Your task to perform on an android device: Open calendar and show me the second week of next month Image 0: 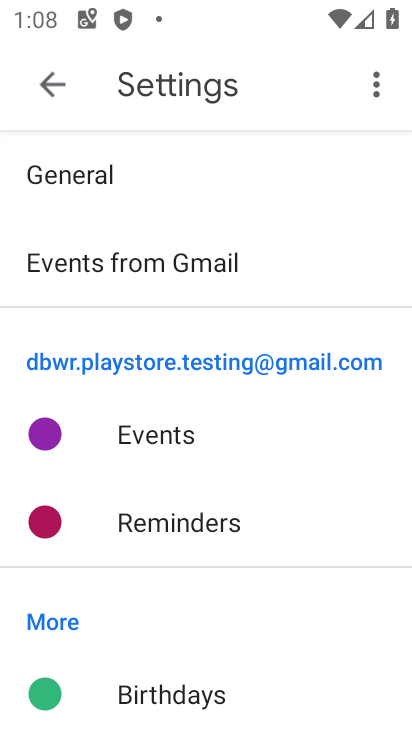
Step 0: press home button
Your task to perform on an android device: Open calendar and show me the second week of next month Image 1: 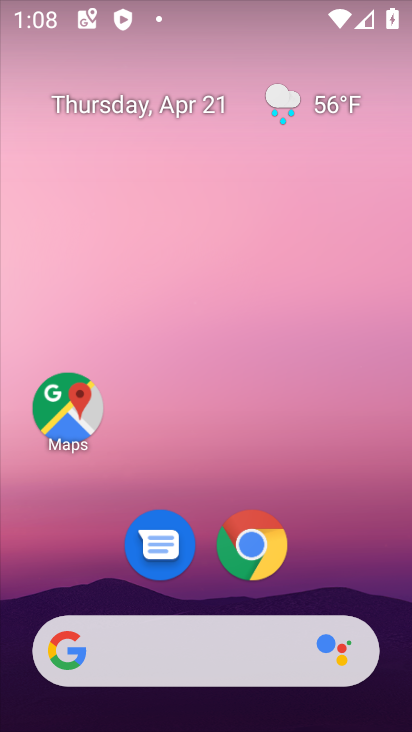
Step 1: drag from (165, 509) to (226, 96)
Your task to perform on an android device: Open calendar and show me the second week of next month Image 2: 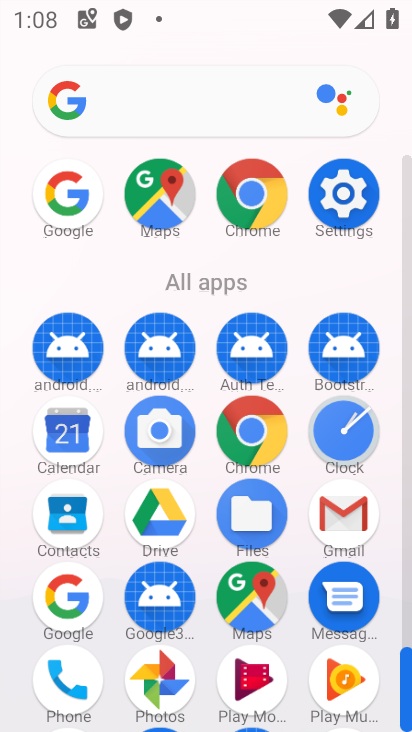
Step 2: click (74, 438)
Your task to perform on an android device: Open calendar and show me the second week of next month Image 3: 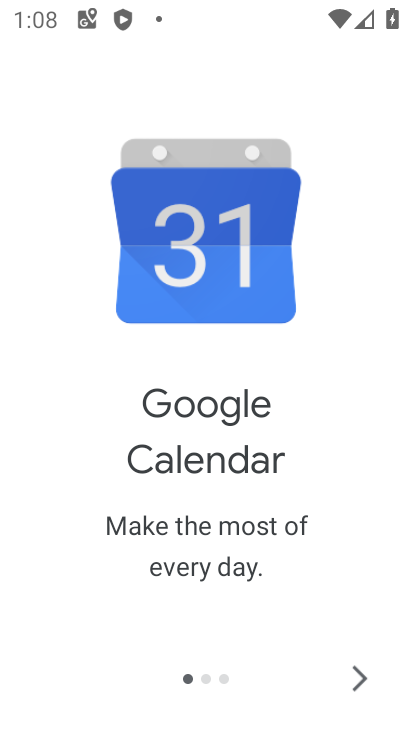
Step 3: click (360, 676)
Your task to perform on an android device: Open calendar and show me the second week of next month Image 4: 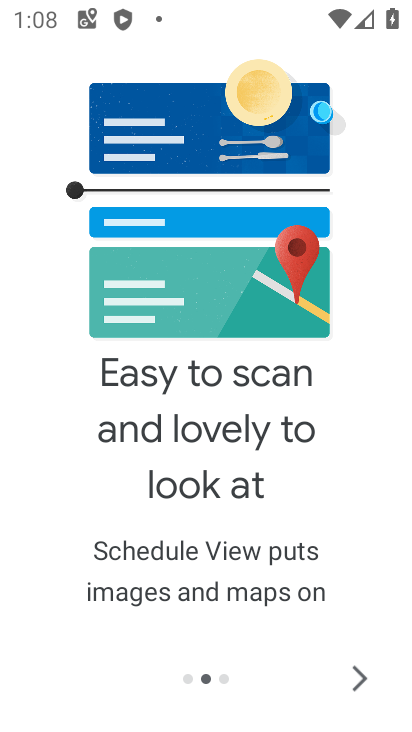
Step 4: click (360, 676)
Your task to perform on an android device: Open calendar and show me the second week of next month Image 5: 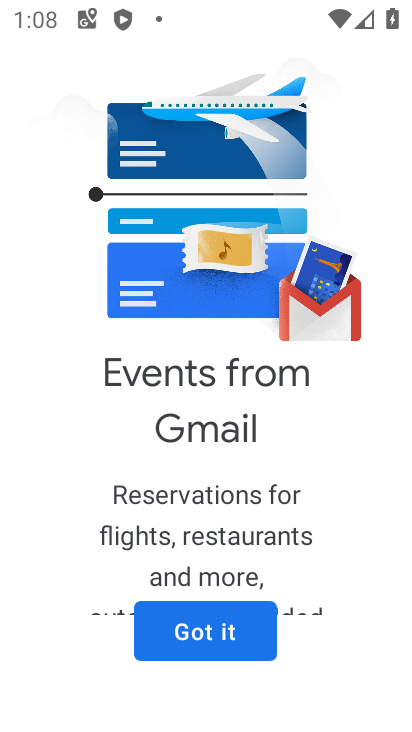
Step 5: click (241, 635)
Your task to perform on an android device: Open calendar and show me the second week of next month Image 6: 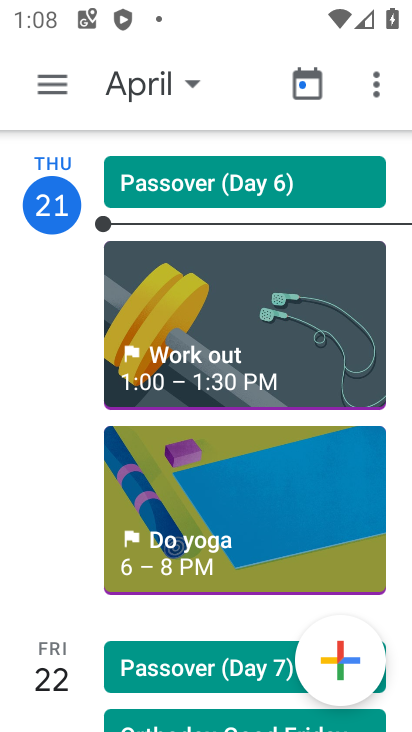
Step 6: click (122, 81)
Your task to perform on an android device: Open calendar and show me the second week of next month Image 7: 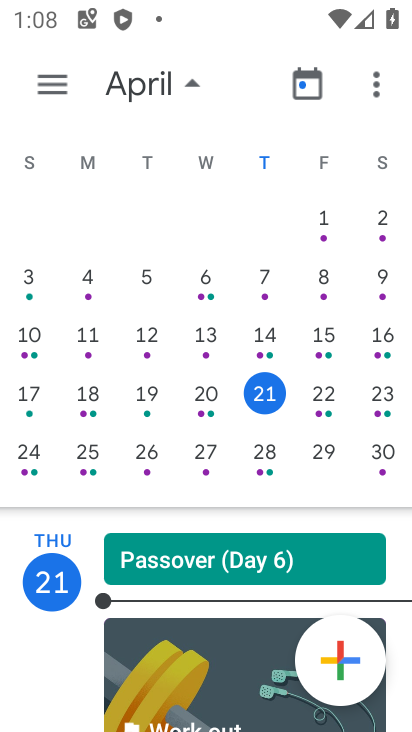
Step 7: drag from (267, 349) to (9, 387)
Your task to perform on an android device: Open calendar and show me the second week of next month Image 8: 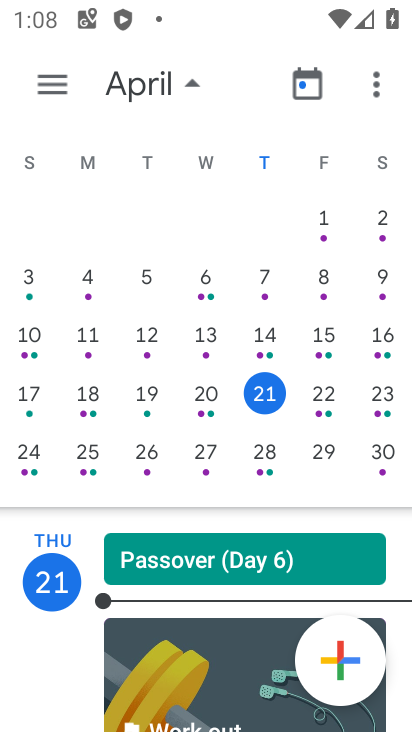
Step 8: drag from (358, 335) to (4, 370)
Your task to perform on an android device: Open calendar and show me the second week of next month Image 9: 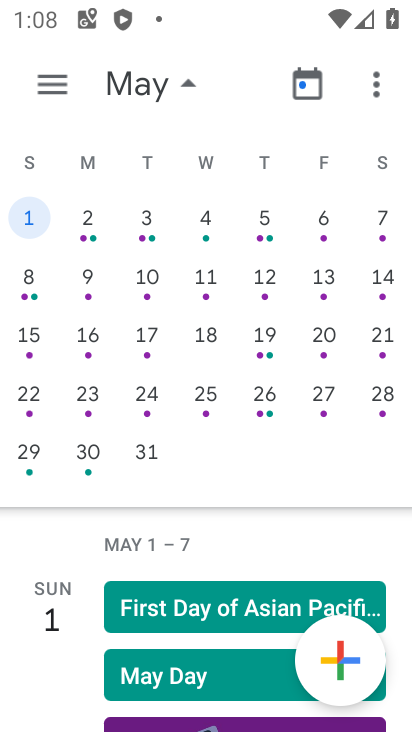
Step 9: click (24, 281)
Your task to perform on an android device: Open calendar and show me the second week of next month Image 10: 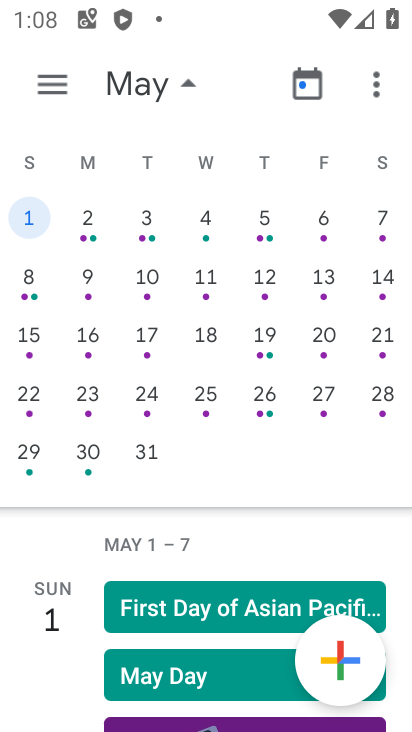
Step 10: click (36, 273)
Your task to perform on an android device: Open calendar and show me the second week of next month Image 11: 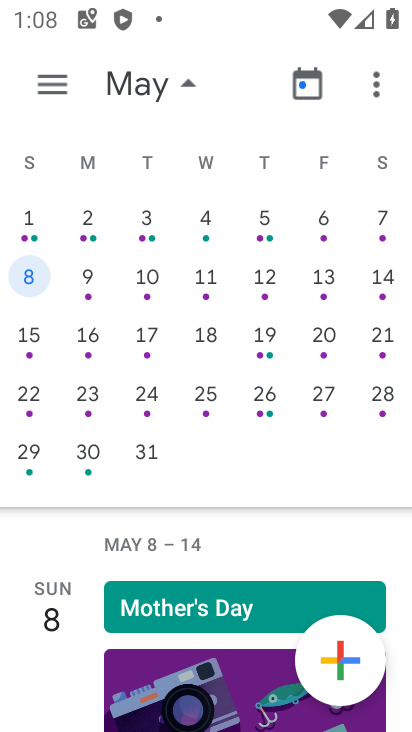
Step 11: click (54, 79)
Your task to perform on an android device: Open calendar and show me the second week of next month Image 12: 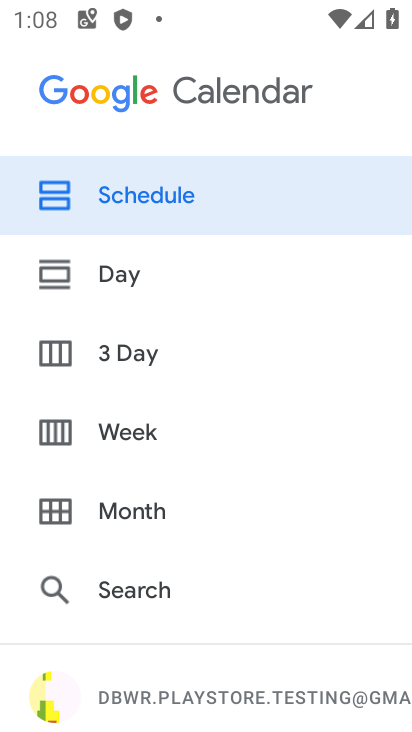
Step 12: click (122, 440)
Your task to perform on an android device: Open calendar and show me the second week of next month Image 13: 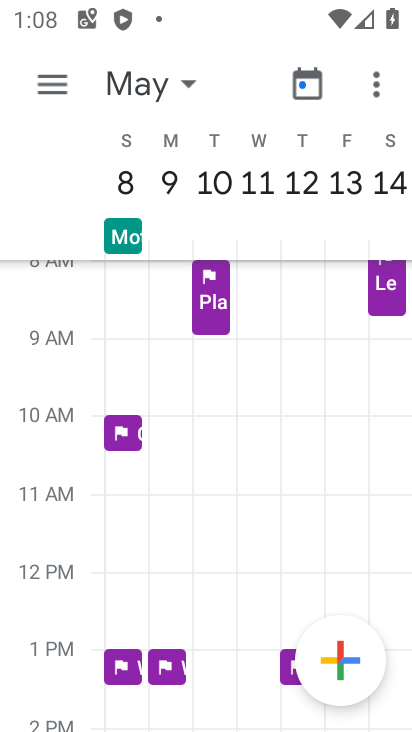
Step 13: task complete